Your task to perform on an android device: Open calendar and show me the first week of next month Image 0: 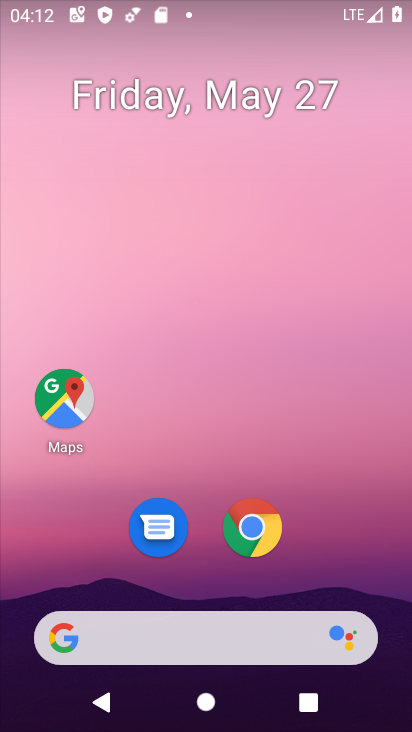
Step 0: drag from (331, 582) to (309, 140)
Your task to perform on an android device: Open calendar and show me the first week of next month Image 1: 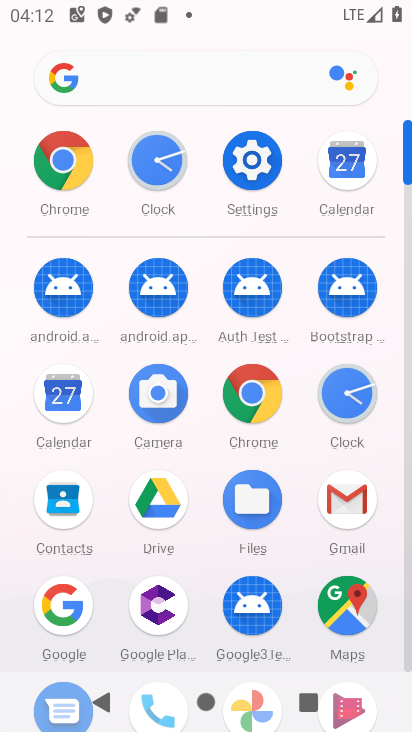
Step 1: click (59, 384)
Your task to perform on an android device: Open calendar and show me the first week of next month Image 2: 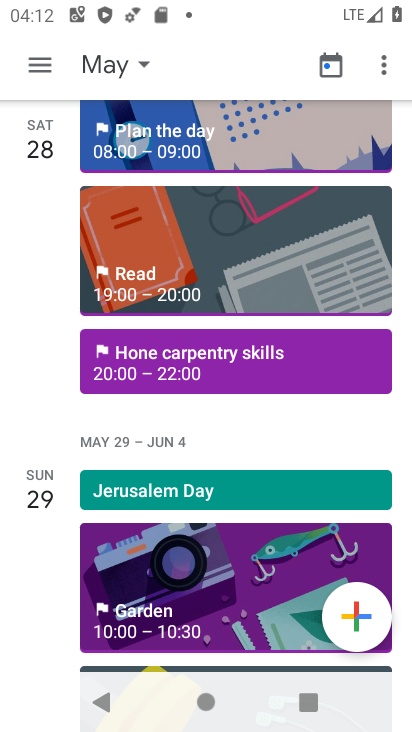
Step 2: click (124, 61)
Your task to perform on an android device: Open calendar and show me the first week of next month Image 3: 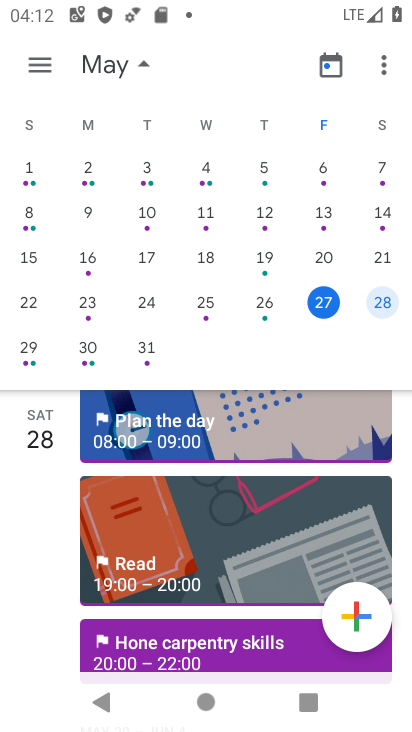
Step 3: drag from (367, 185) to (24, 181)
Your task to perform on an android device: Open calendar and show me the first week of next month Image 4: 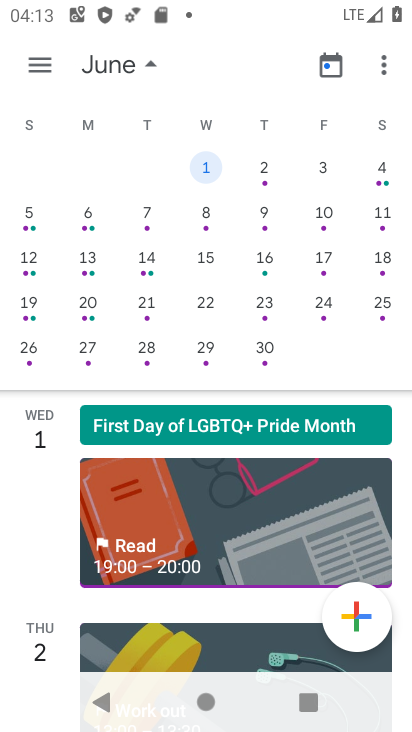
Step 4: click (251, 165)
Your task to perform on an android device: Open calendar and show me the first week of next month Image 5: 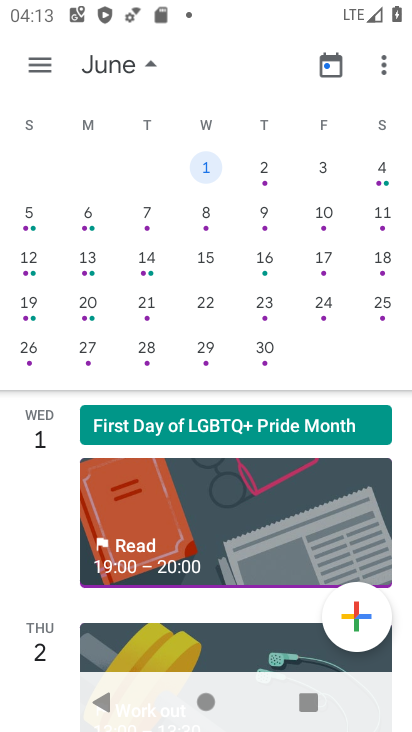
Step 5: click (260, 166)
Your task to perform on an android device: Open calendar and show me the first week of next month Image 6: 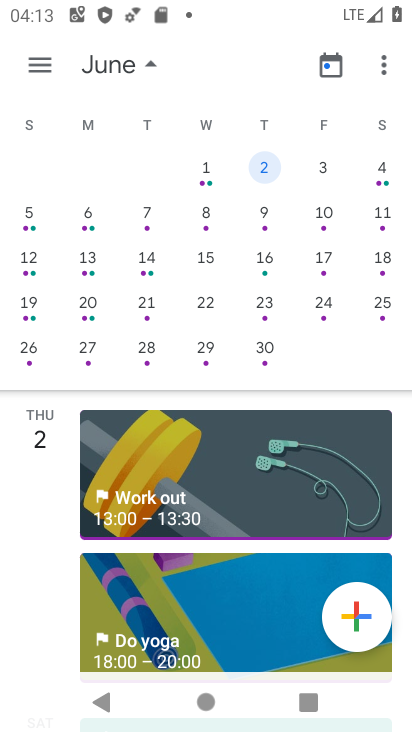
Step 6: task complete